Your task to perform on an android device: Open Android settings Image 0: 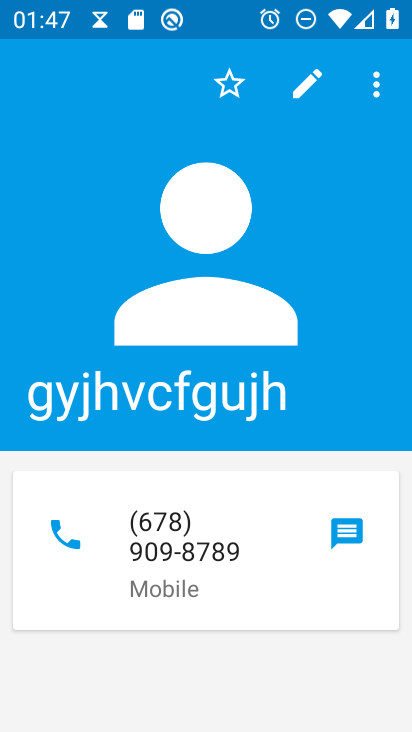
Step 0: press home button
Your task to perform on an android device: Open Android settings Image 1: 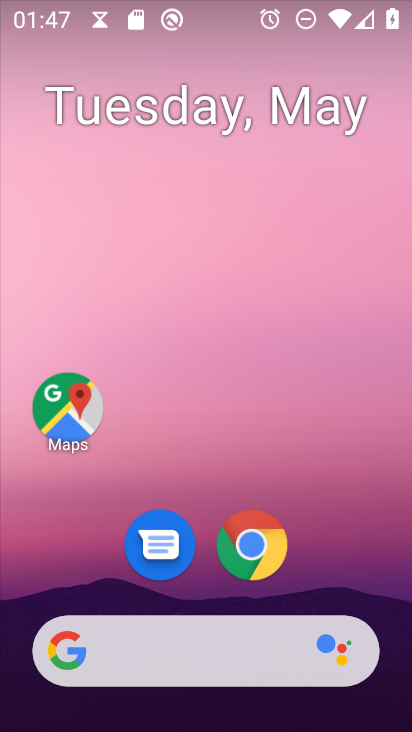
Step 1: drag from (307, 573) to (288, 62)
Your task to perform on an android device: Open Android settings Image 2: 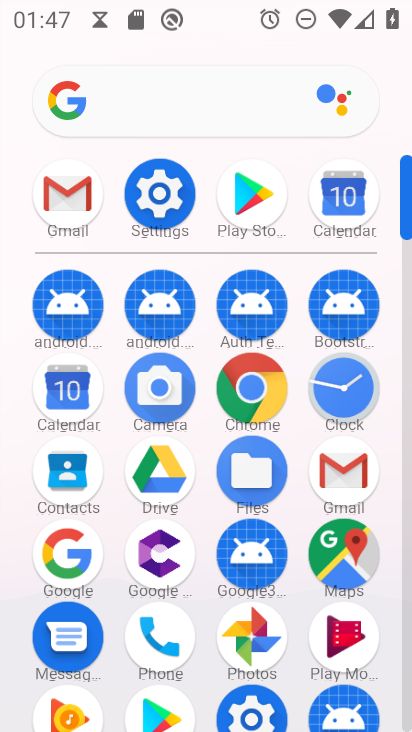
Step 2: click (149, 194)
Your task to perform on an android device: Open Android settings Image 3: 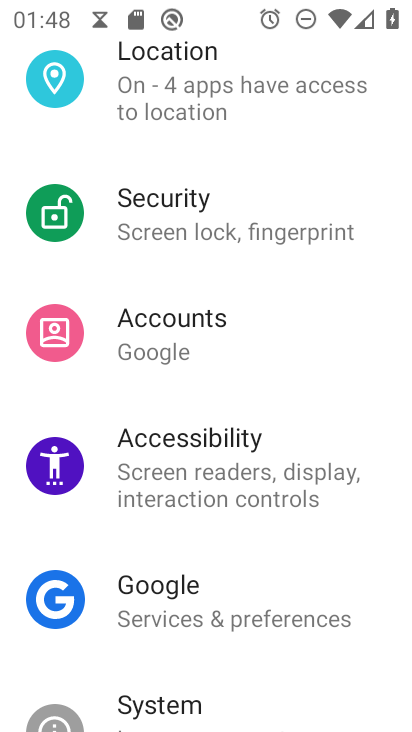
Step 3: click (241, 703)
Your task to perform on an android device: Open Android settings Image 4: 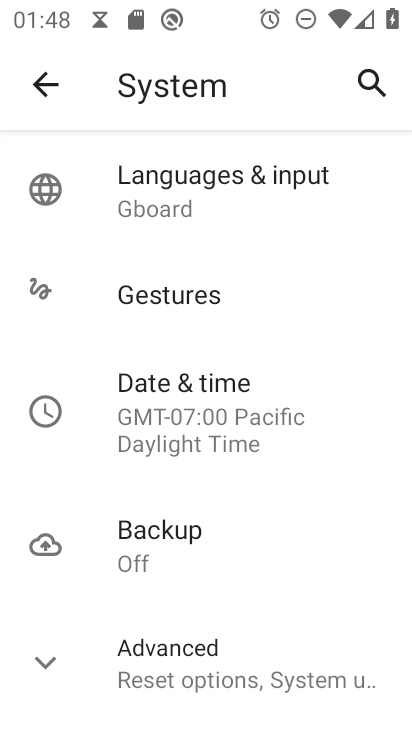
Step 4: task complete